Your task to perform on an android device: snooze an email in the gmail app Image 0: 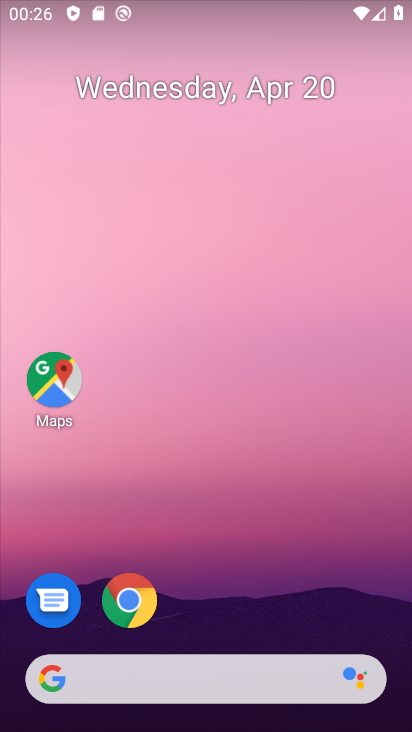
Step 0: drag from (296, 537) to (112, 25)
Your task to perform on an android device: snooze an email in the gmail app Image 1: 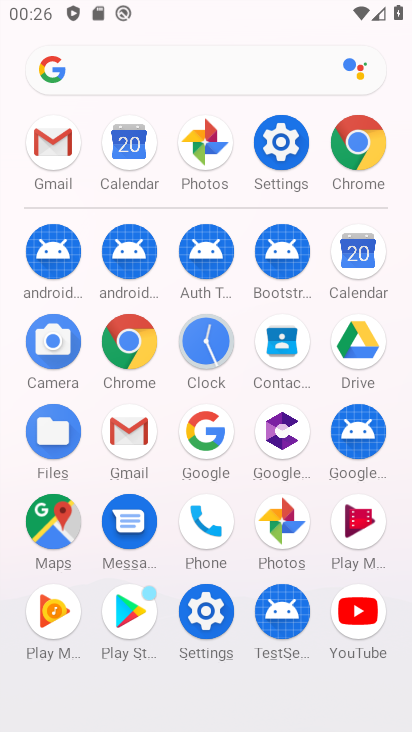
Step 1: click (52, 135)
Your task to perform on an android device: snooze an email in the gmail app Image 2: 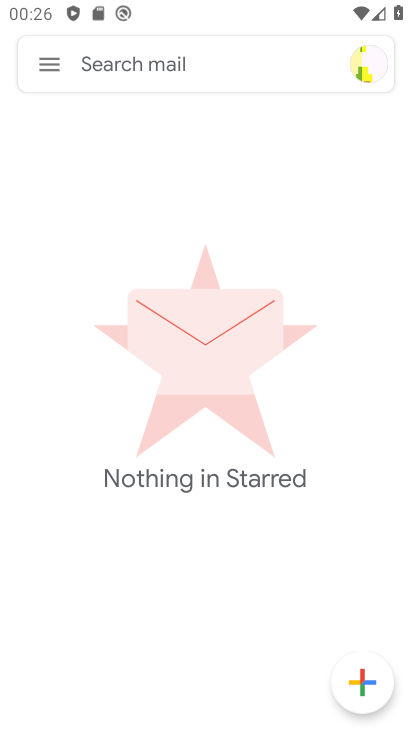
Step 2: click (43, 57)
Your task to perform on an android device: snooze an email in the gmail app Image 3: 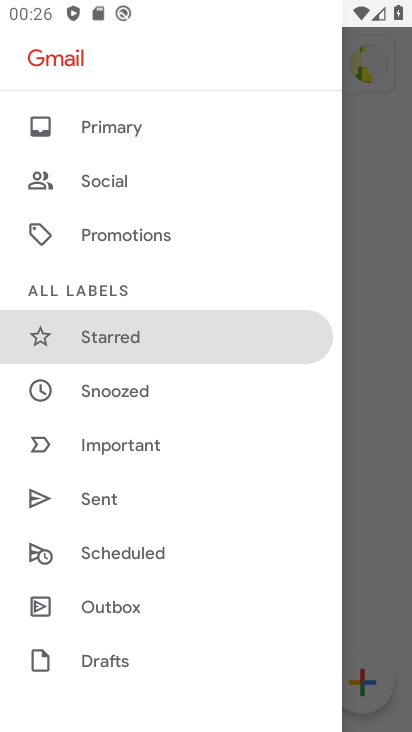
Step 3: drag from (201, 516) to (119, 143)
Your task to perform on an android device: snooze an email in the gmail app Image 4: 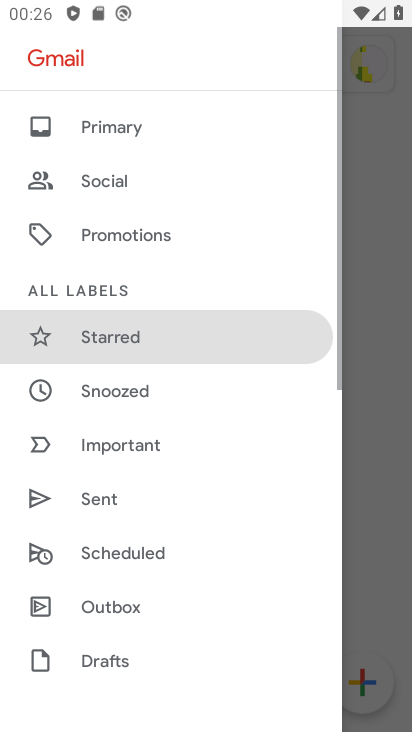
Step 4: drag from (194, 522) to (190, 155)
Your task to perform on an android device: snooze an email in the gmail app Image 5: 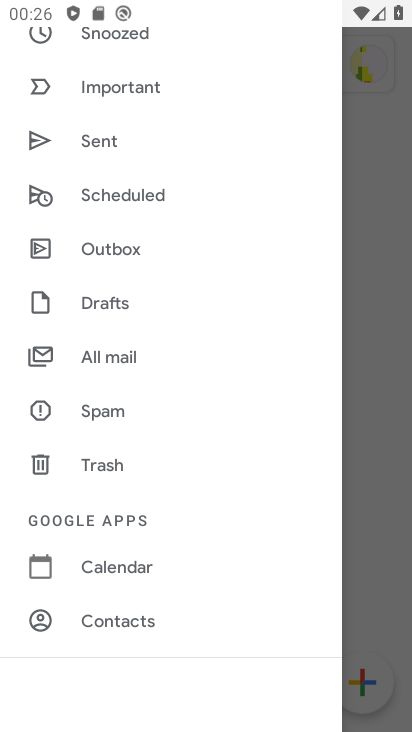
Step 5: drag from (193, 530) to (216, 125)
Your task to perform on an android device: snooze an email in the gmail app Image 6: 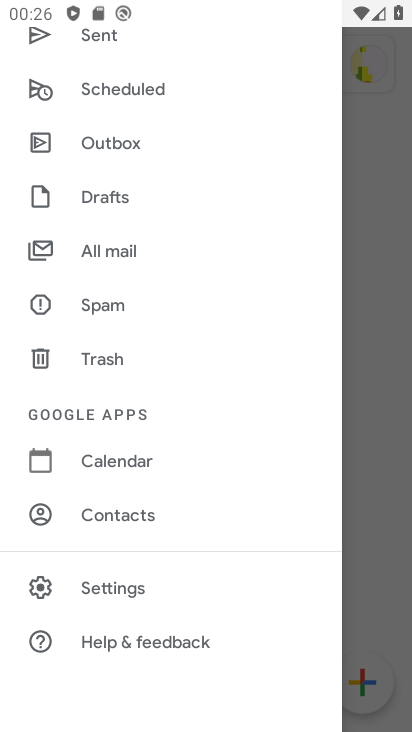
Step 6: click (120, 574)
Your task to perform on an android device: snooze an email in the gmail app Image 7: 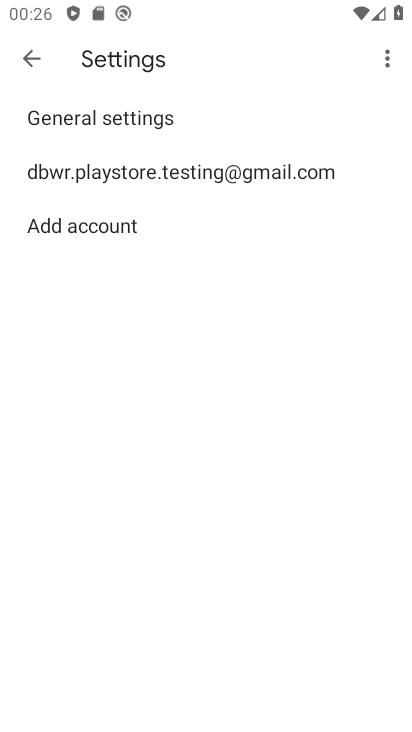
Step 7: click (35, 55)
Your task to perform on an android device: snooze an email in the gmail app Image 8: 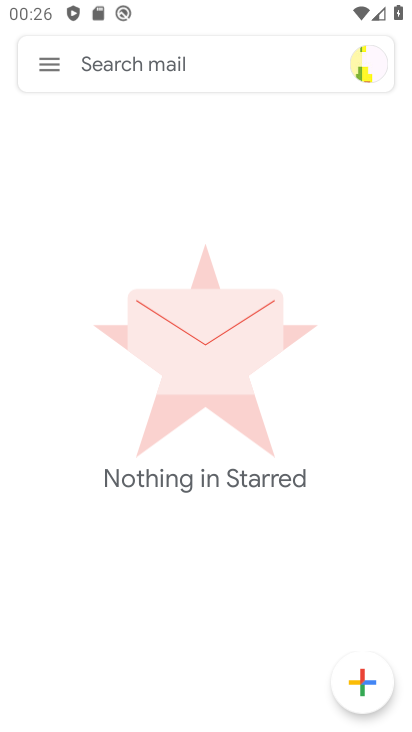
Step 8: click (39, 58)
Your task to perform on an android device: snooze an email in the gmail app Image 9: 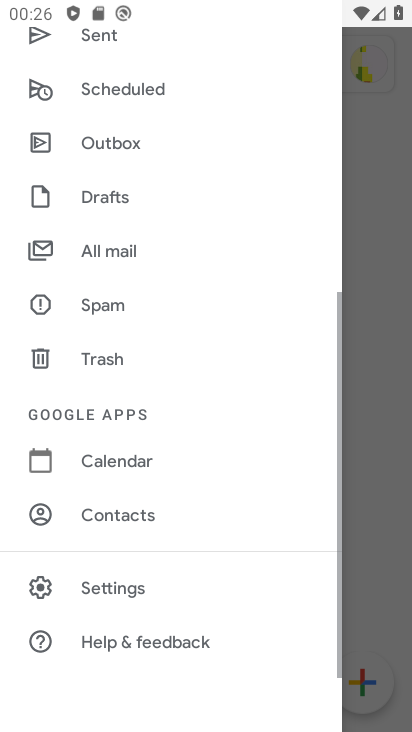
Step 9: drag from (216, 192) to (240, 464)
Your task to perform on an android device: snooze an email in the gmail app Image 10: 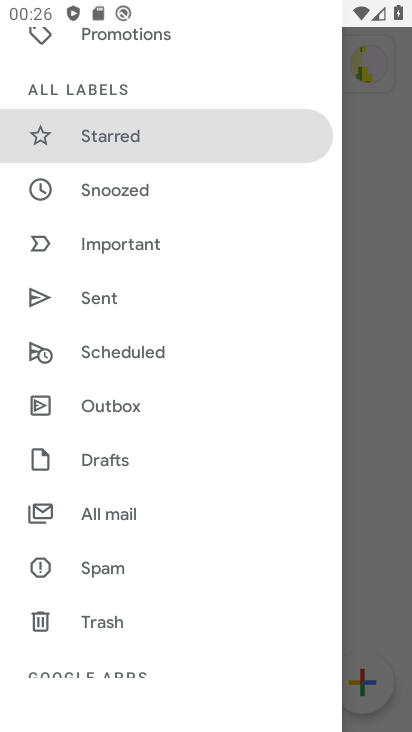
Step 10: click (149, 190)
Your task to perform on an android device: snooze an email in the gmail app Image 11: 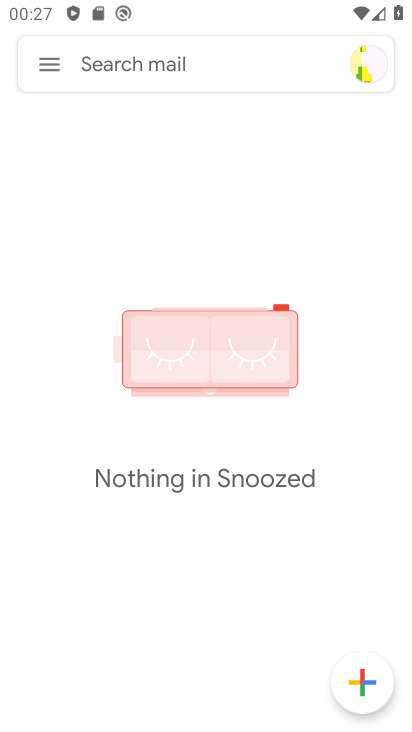
Step 11: task complete